Your task to perform on an android device: Open network settings Image 0: 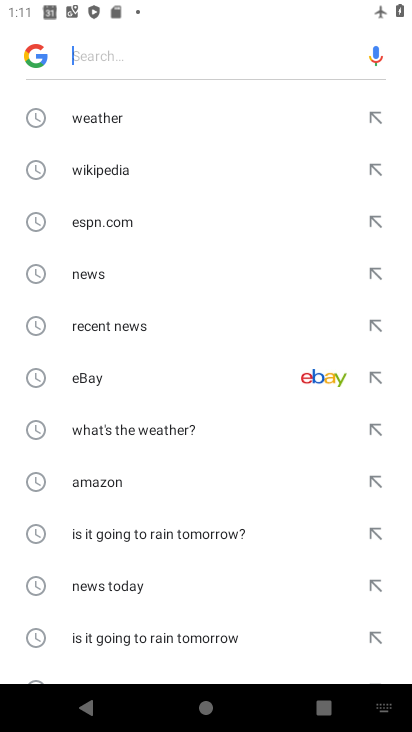
Step 0: press home button
Your task to perform on an android device: Open network settings Image 1: 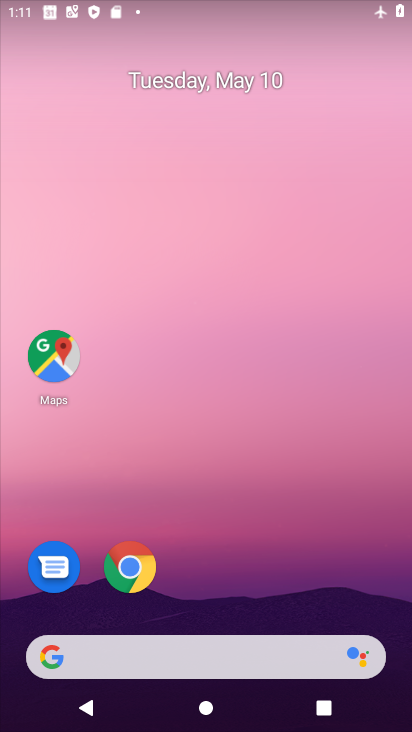
Step 1: drag from (348, 600) to (348, 84)
Your task to perform on an android device: Open network settings Image 2: 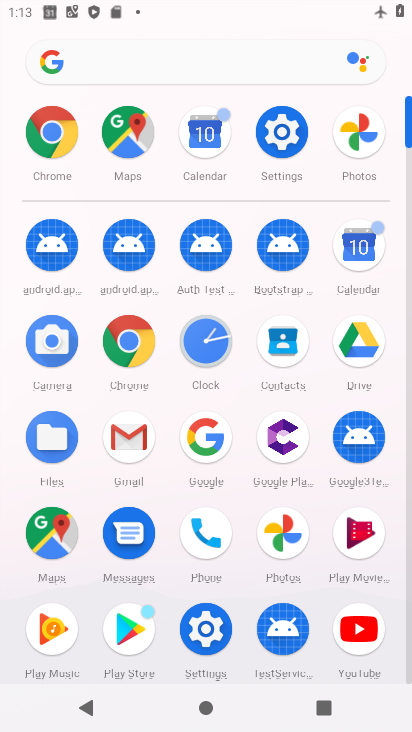
Step 2: click (194, 627)
Your task to perform on an android device: Open network settings Image 3: 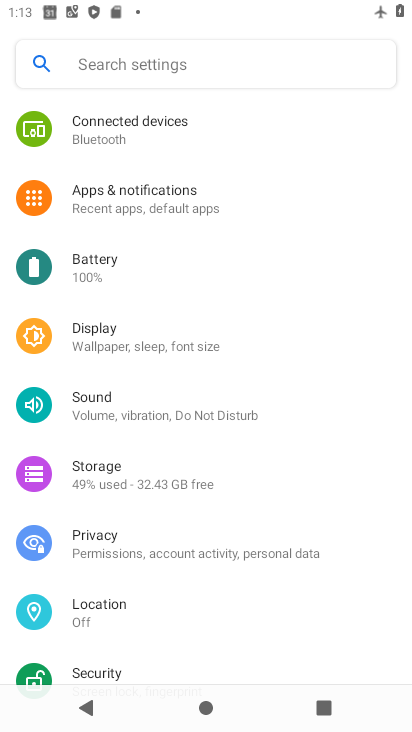
Step 3: drag from (181, 162) to (213, 560)
Your task to perform on an android device: Open network settings Image 4: 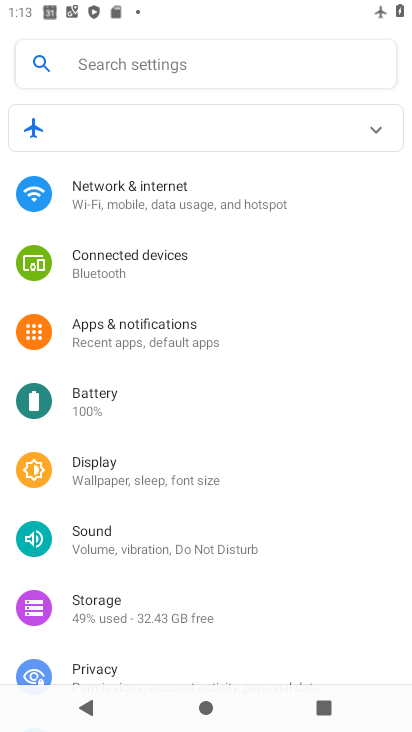
Step 4: click (118, 224)
Your task to perform on an android device: Open network settings Image 5: 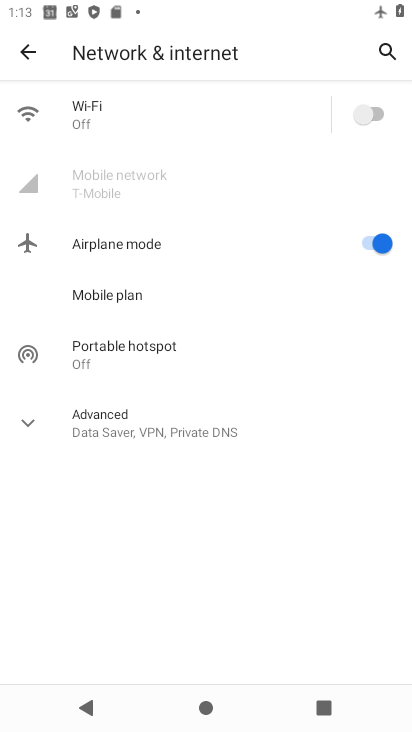
Step 5: task complete